Your task to perform on an android device: change alarm snooze length Image 0: 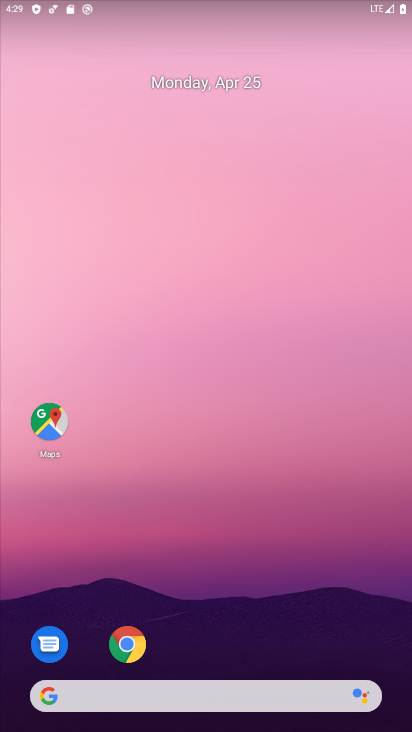
Step 0: drag from (228, 653) to (207, 223)
Your task to perform on an android device: change alarm snooze length Image 1: 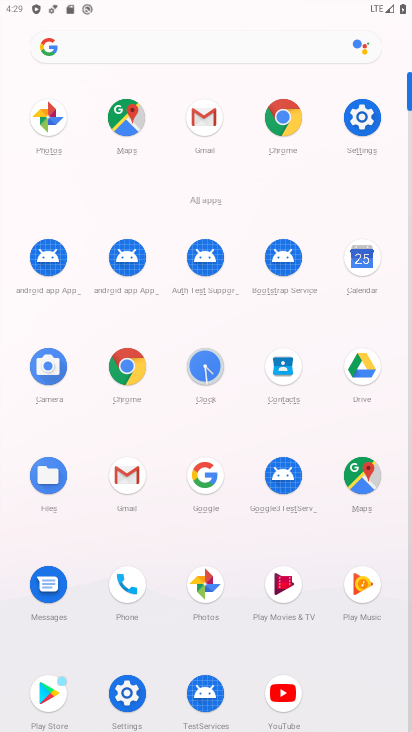
Step 1: click (208, 368)
Your task to perform on an android device: change alarm snooze length Image 2: 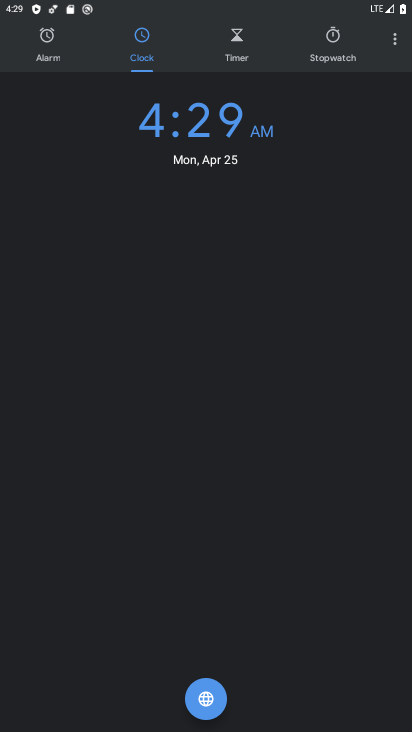
Step 2: click (393, 43)
Your task to perform on an android device: change alarm snooze length Image 3: 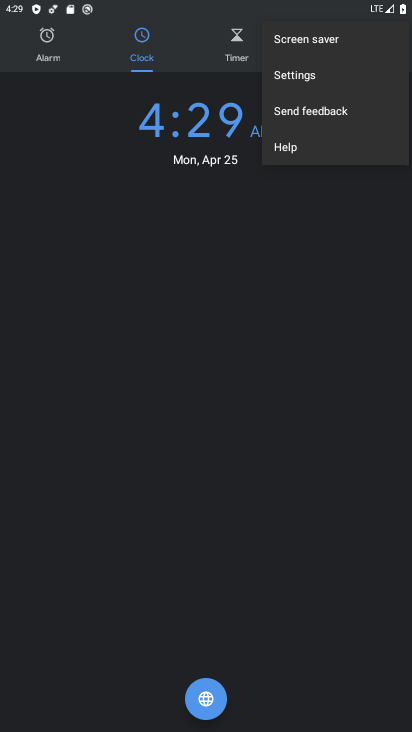
Step 3: click (309, 79)
Your task to perform on an android device: change alarm snooze length Image 4: 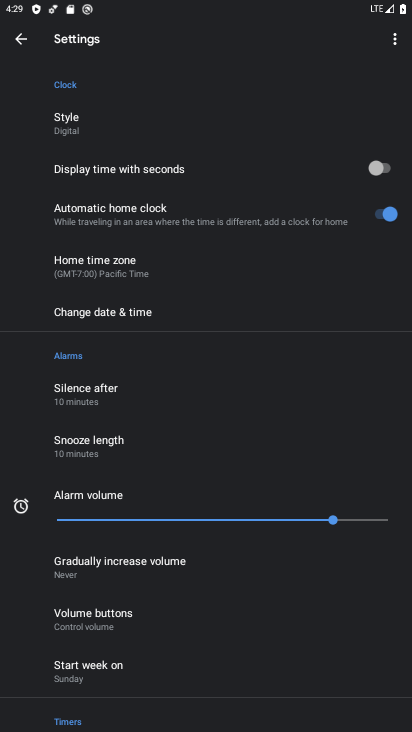
Step 4: click (168, 583)
Your task to perform on an android device: change alarm snooze length Image 5: 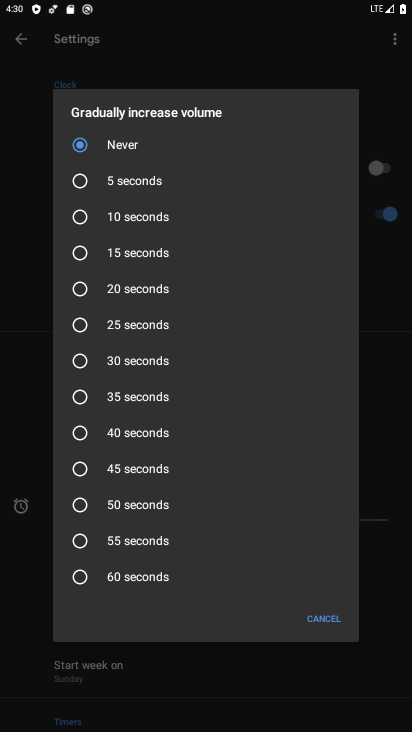
Step 5: click (126, 515)
Your task to perform on an android device: change alarm snooze length Image 6: 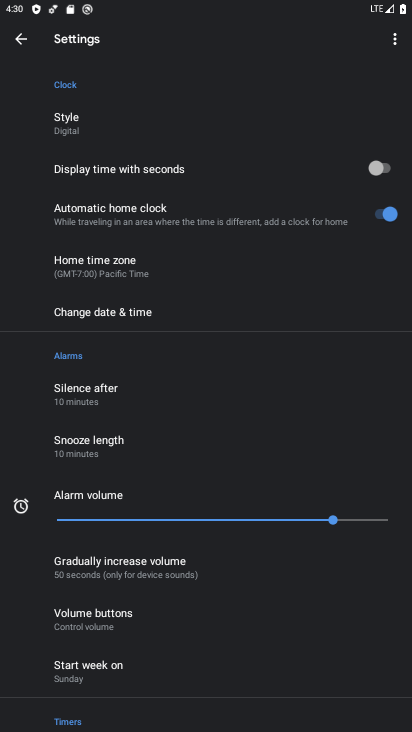
Step 6: task complete